Your task to perform on an android device: Check the news Image 0: 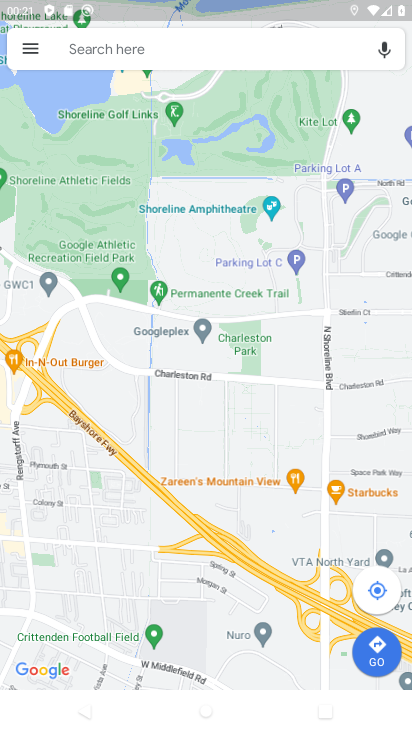
Step 0: press home button
Your task to perform on an android device: Check the news Image 1: 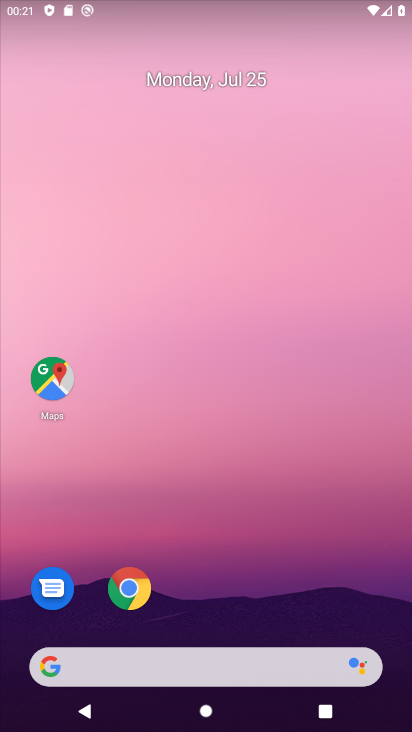
Step 1: click (184, 665)
Your task to perform on an android device: Check the news Image 2: 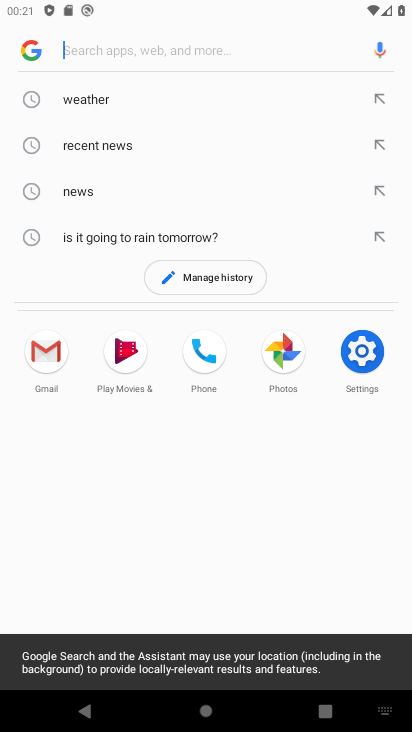
Step 2: click (93, 192)
Your task to perform on an android device: Check the news Image 3: 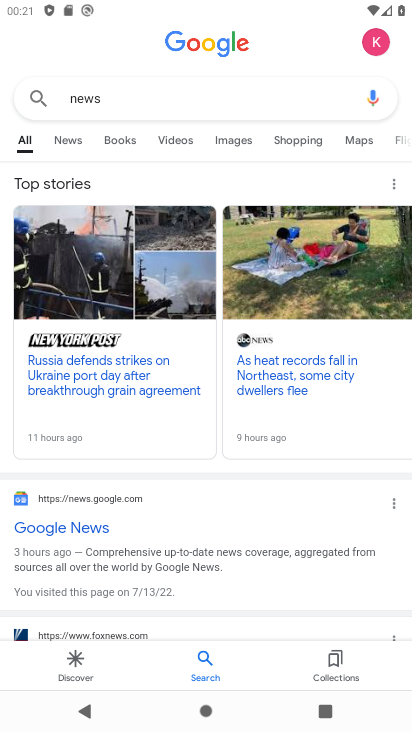
Step 3: task complete